Your task to perform on an android device: toggle notifications settings in the gmail app Image 0: 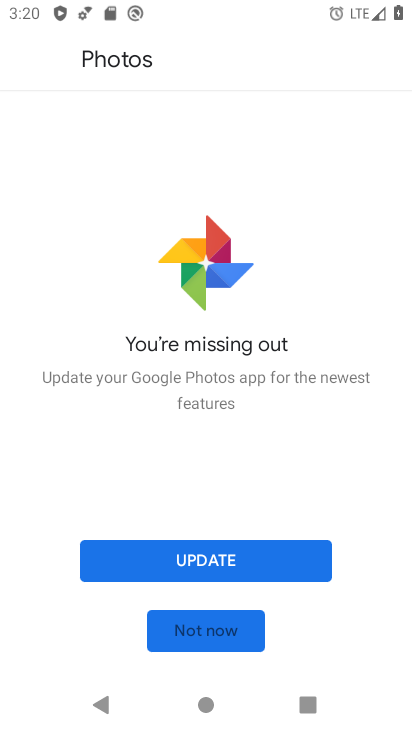
Step 0: press home button
Your task to perform on an android device: toggle notifications settings in the gmail app Image 1: 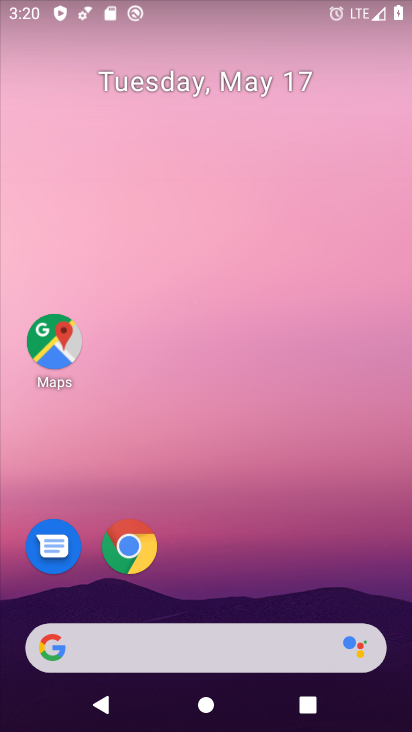
Step 1: drag from (305, 546) to (309, 0)
Your task to perform on an android device: toggle notifications settings in the gmail app Image 2: 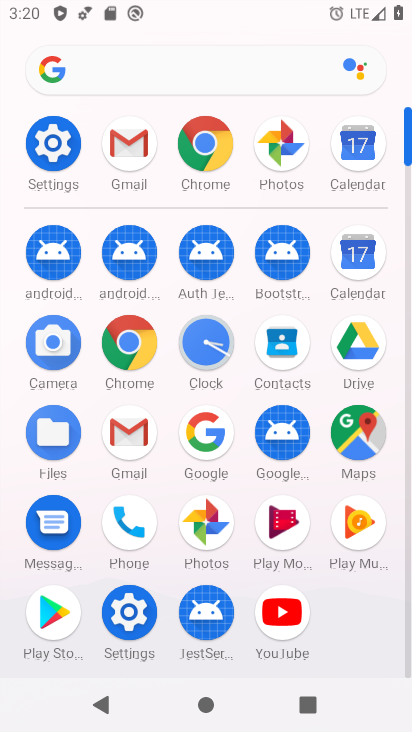
Step 2: click (126, 153)
Your task to perform on an android device: toggle notifications settings in the gmail app Image 3: 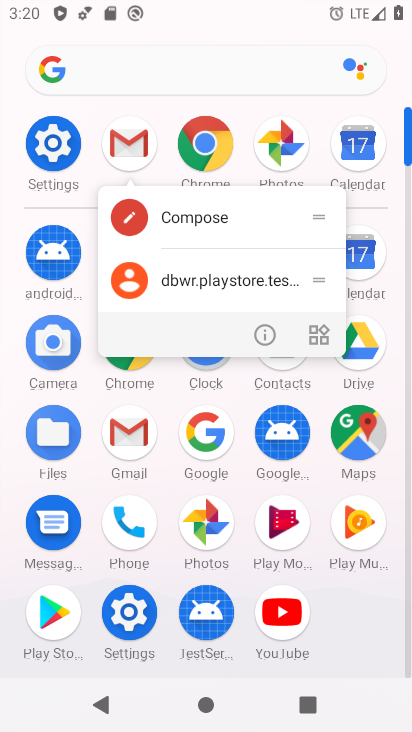
Step 3: click (260, 337)
Your task to perform on an android device: toggle notifications settings in the gmail app Image 4: 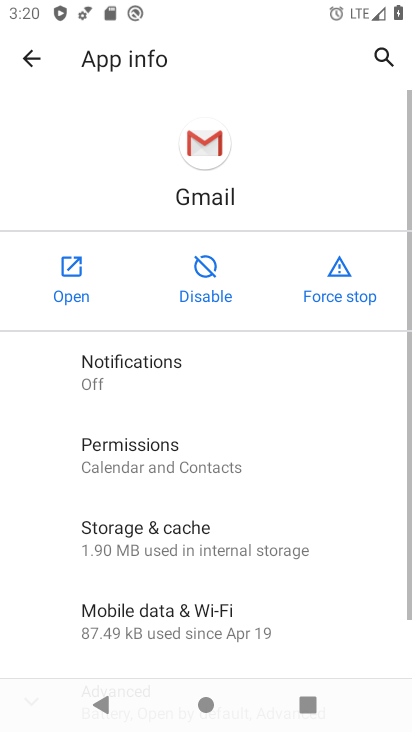
Step 4: click (215, 379)
Your task to perform on an android device: toggle notifications settings in the gmail app Image 5: 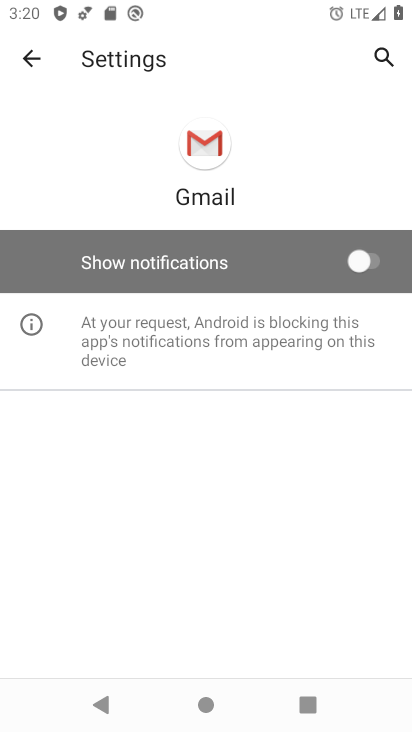
Step 5: click (361, 258)
Your task to perform on an android device: toggle notifications settings in the gmail app Image 6: 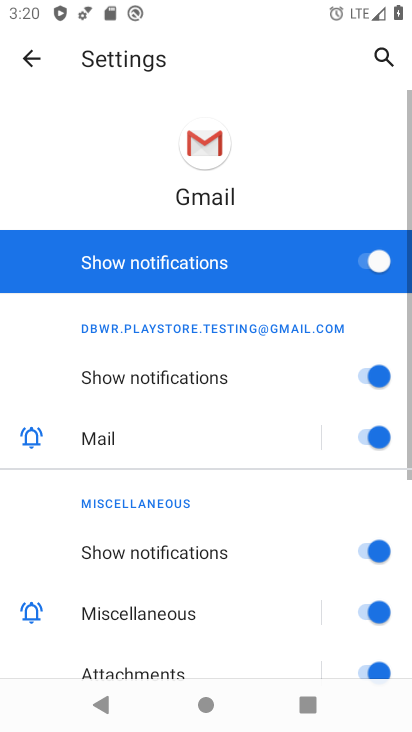
Step 6: task complete